Your task to perform on an android device: move an email to a new category in the gmail app Image 0: 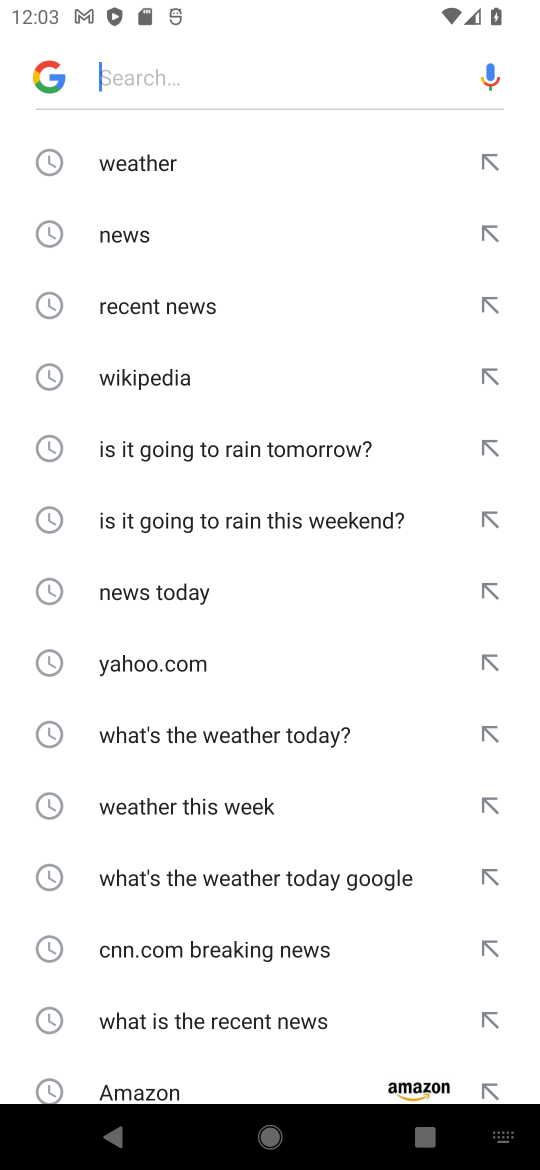
Step 0: press home button
Your task to perform on an android device: move an email to a new category in the gmail app Image 1: 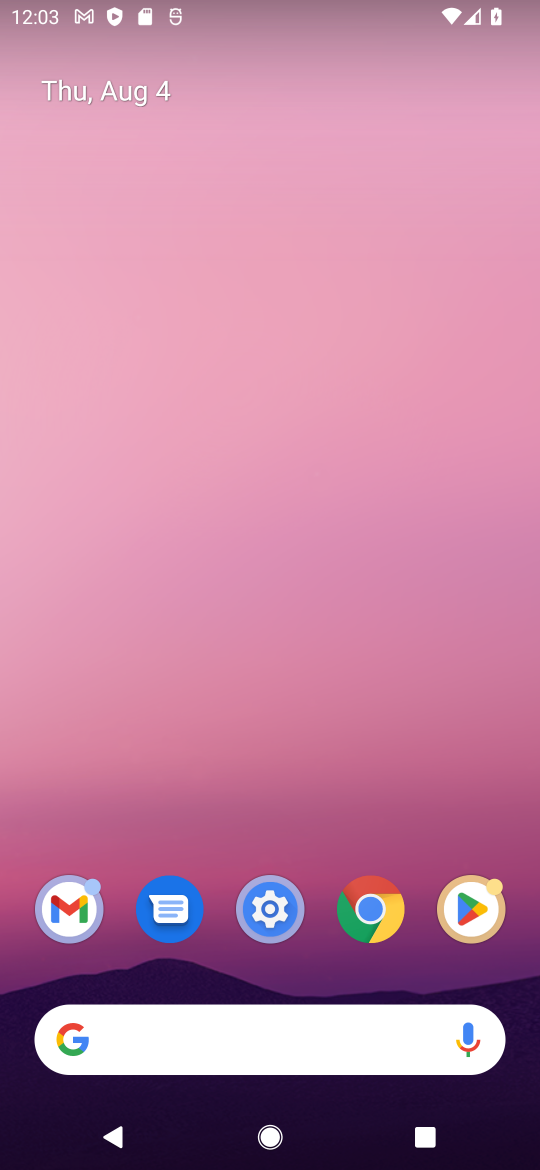
Step 1: click (71, 905)
Your task to perform on an android device: move an email to a new category in the gmail app Image 2: 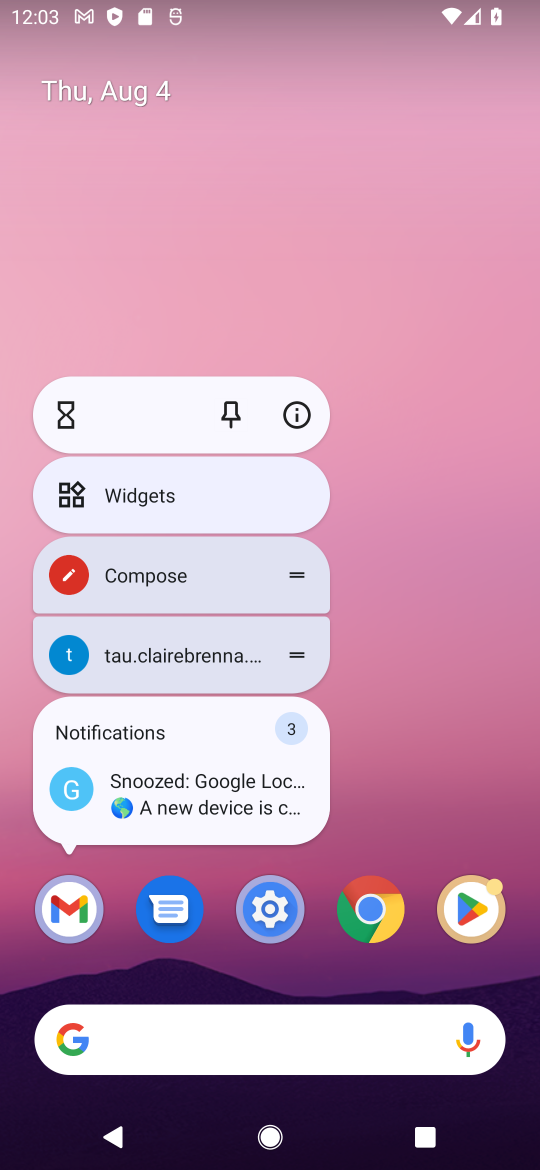
Step 2: click (79, 895)
Your task to perform on an android device: move an email to a new category in the gmail app Image 3: 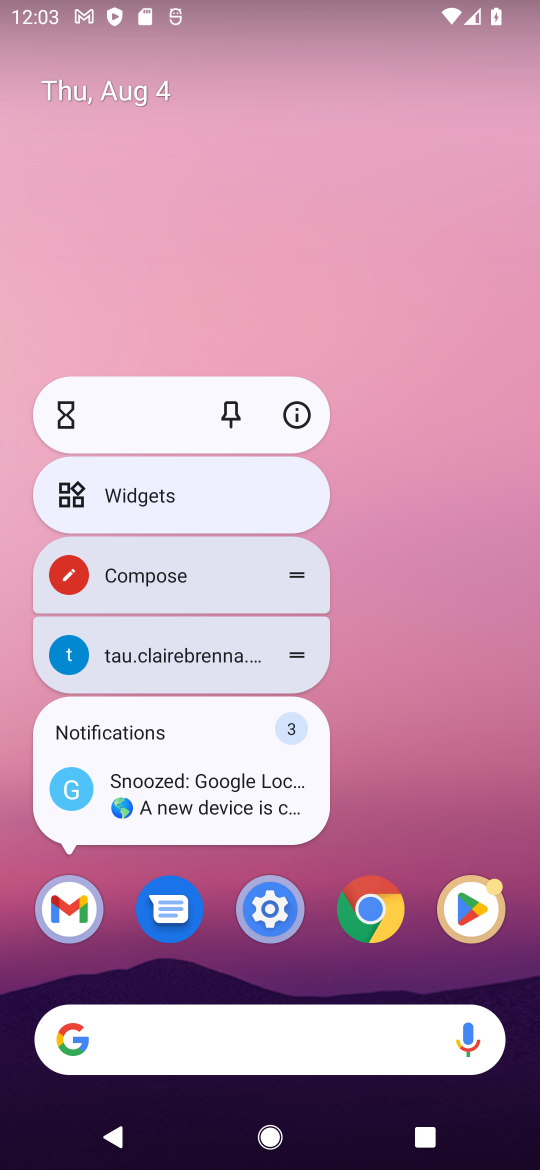
Step 3: click (79, 895)
Your task to perform on an android device: move an email to a new category in the gmail app Image 4: 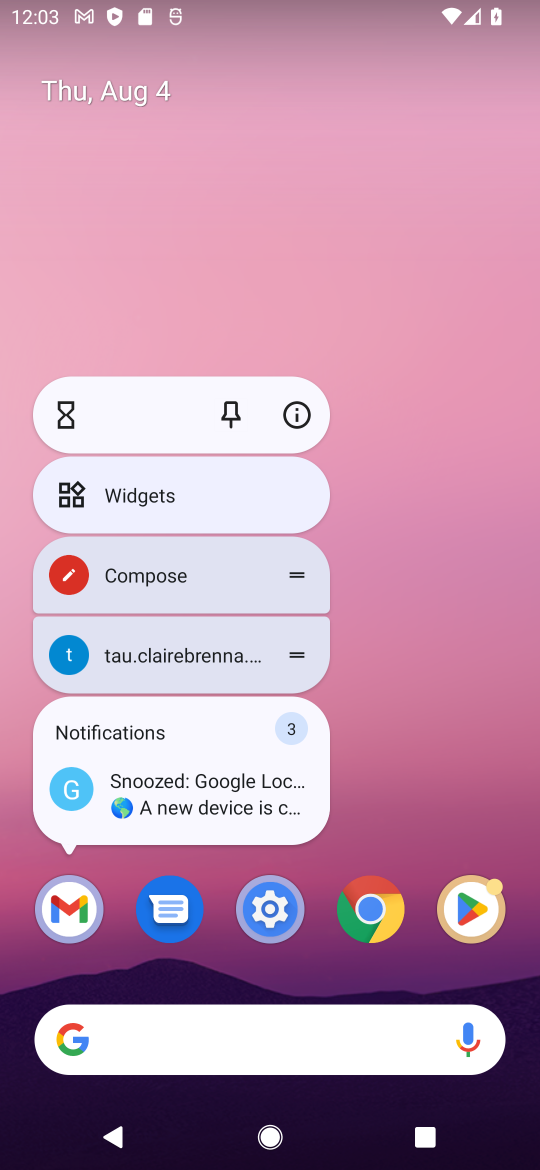
Step 4: click (55, 919)
Your task to perform on an android device: move an email to a new category in the gmail app Image 5: 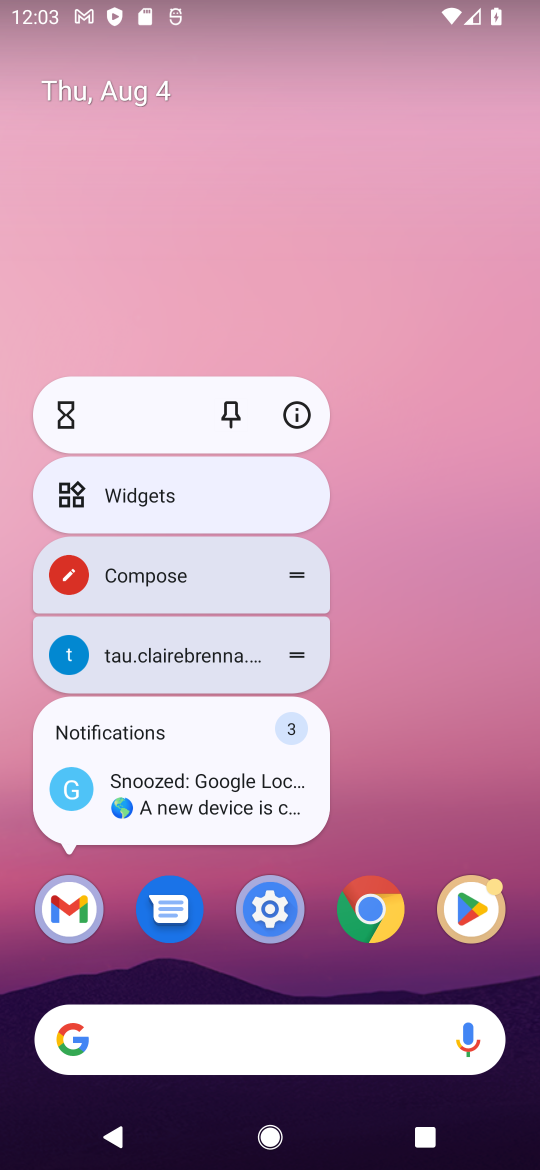
Step 5: click (55, 919)
Your task to perform on an android device: move an email to a new category in the gmail app Image 6: 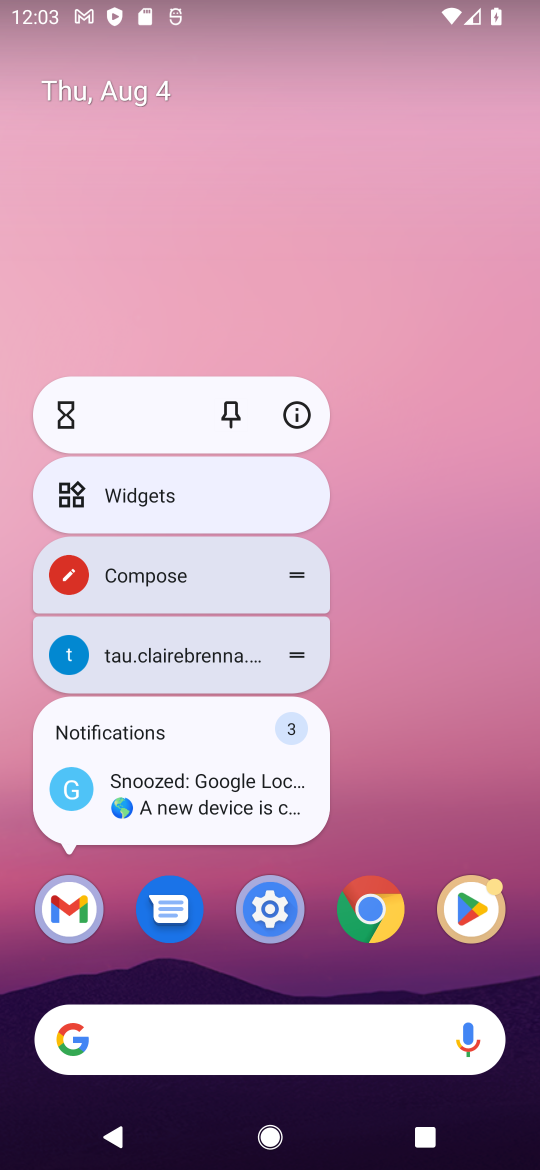
Step 6: click (55, 919)
Your task to perform on an android device: move an email to a new category in the gmail app Image 7: 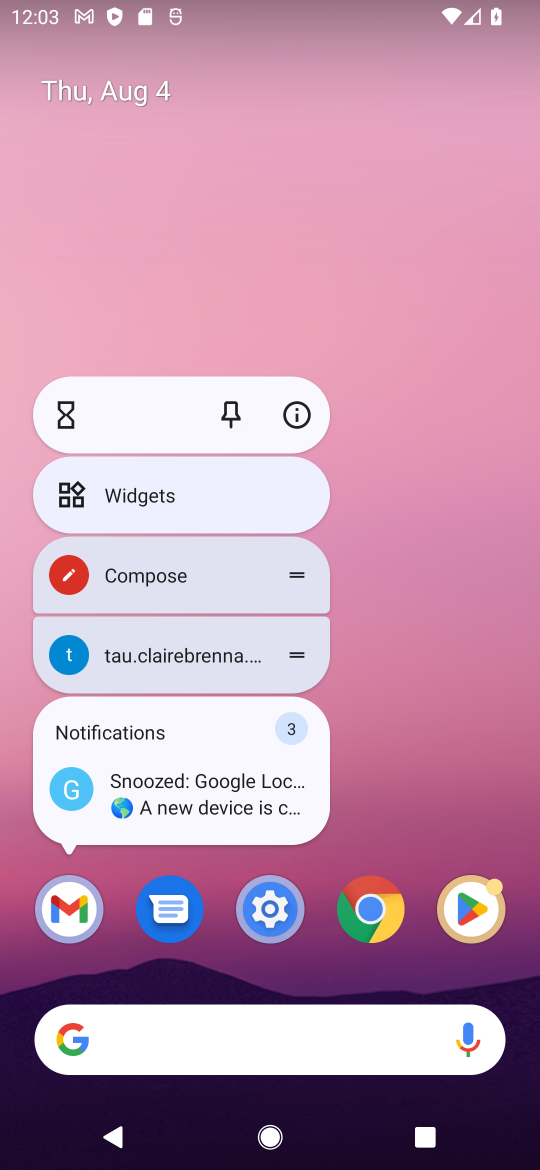
Step 7: click (58, 927)
Your task to perform on an android device: move an email to a new category in the gmail app Image 8: 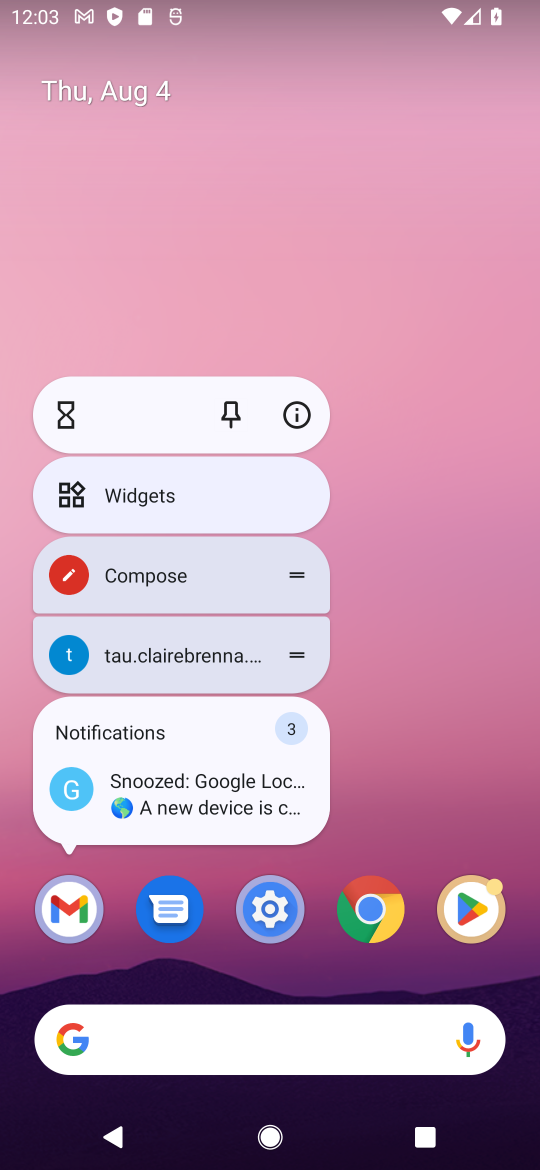
Step 8: click (62, 925)
Your task to perform on an android device: move an email to a new category in the gmail app Image 9: 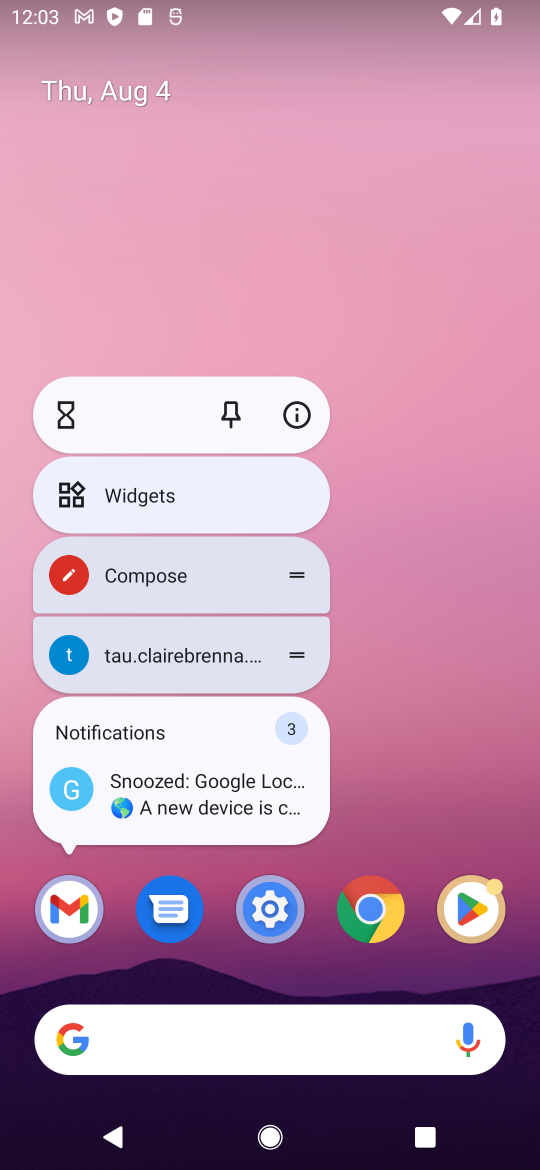
Step 9: click (62, 925)
Your task to perform on an android device: move an email to a new category in the gmail app Image 10: 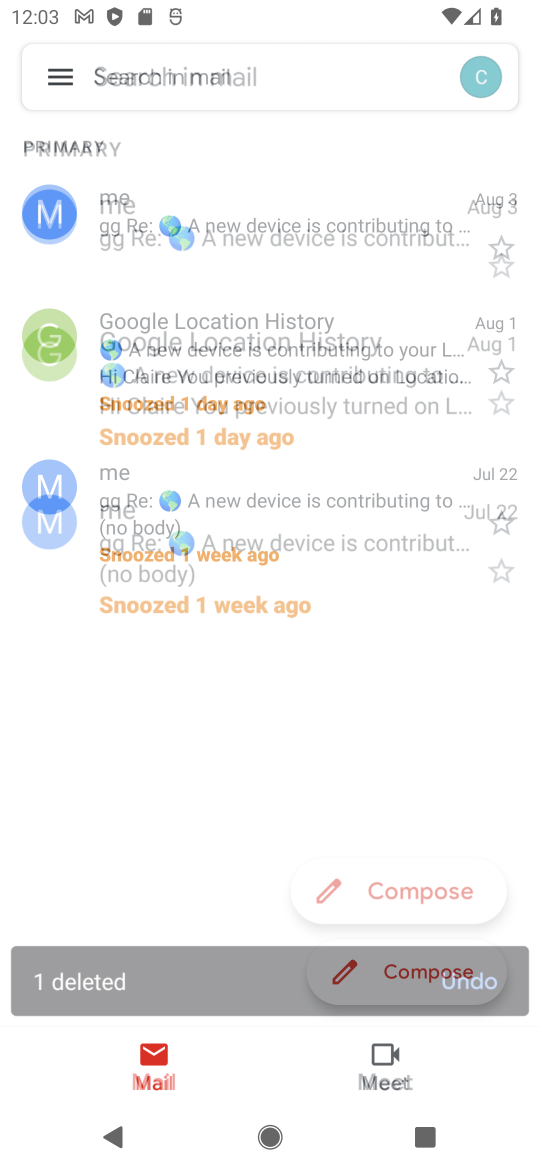
Step 10: click (62, 925)
Your task to perform on an android device: move an email to a new category in the gmail app Image 11: 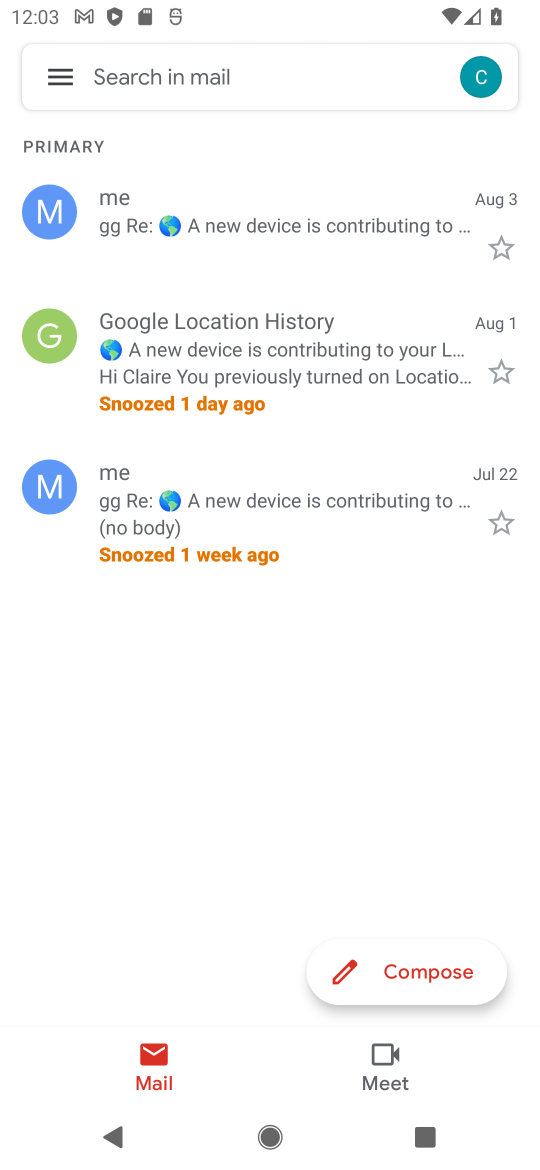
Step 11: click (398, 301)
Your task to perform on an android device: move an email to a new category in the gmail app Image 12: 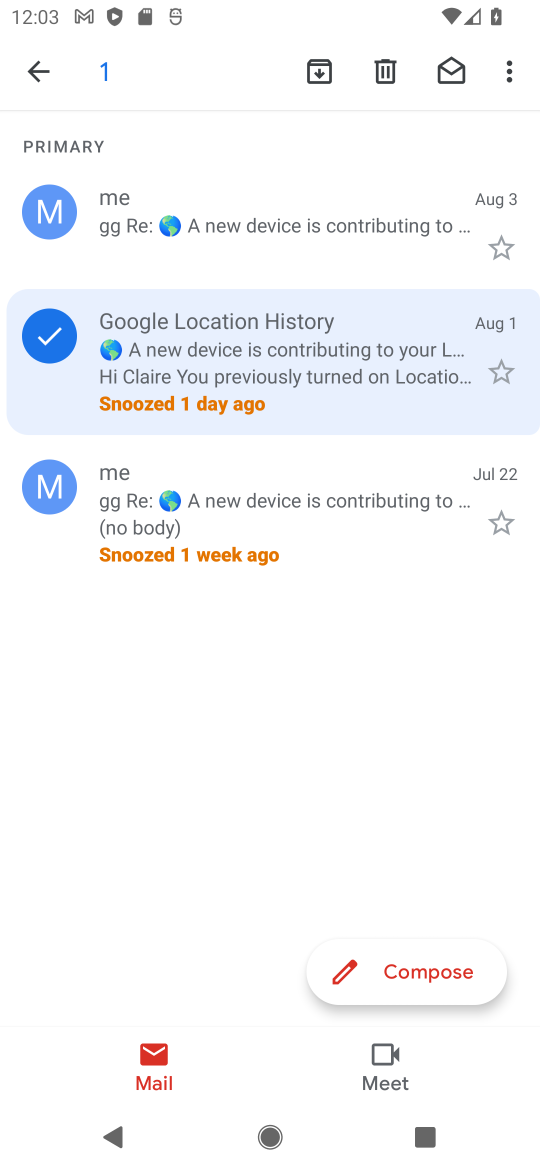
Step 12: click (504, 74)
Your task to perform on an android device: move an email to a new category in the gmail app Image 13: 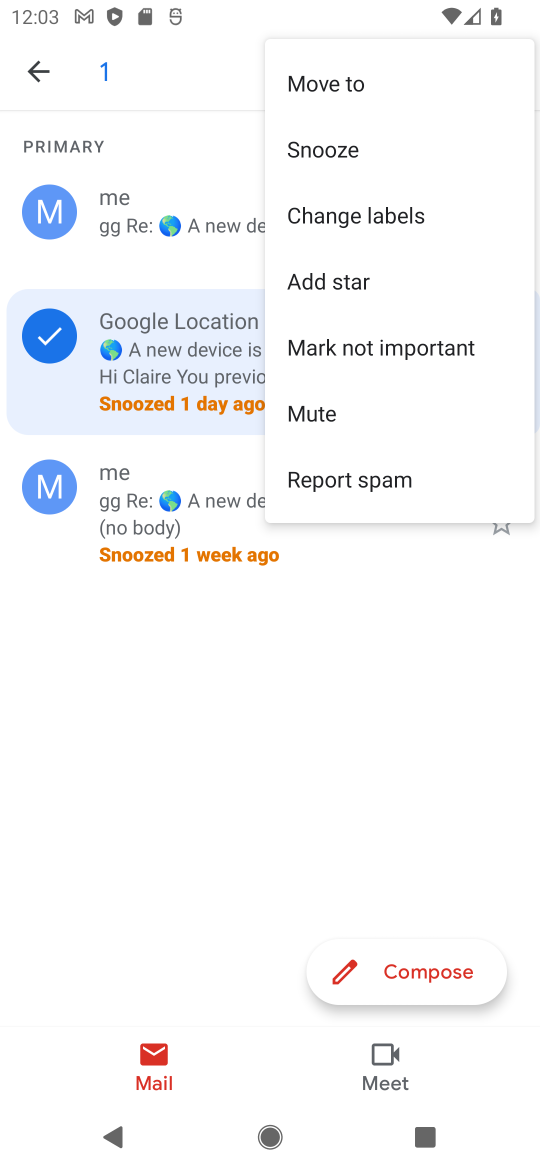
Step 13: click (404, 79)
Your task to perform on an android device: move an email to a new category in the gmail app Image 14: 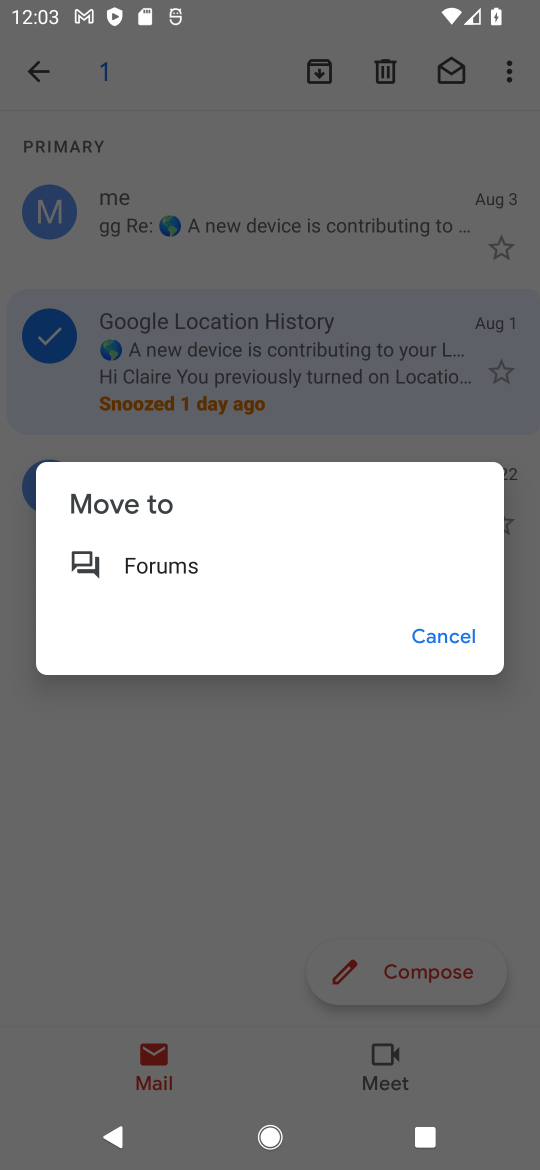
Step 14: click (120, 563)
Your task to perform on an android device: move an email to a new category in the gmail app Image 15: 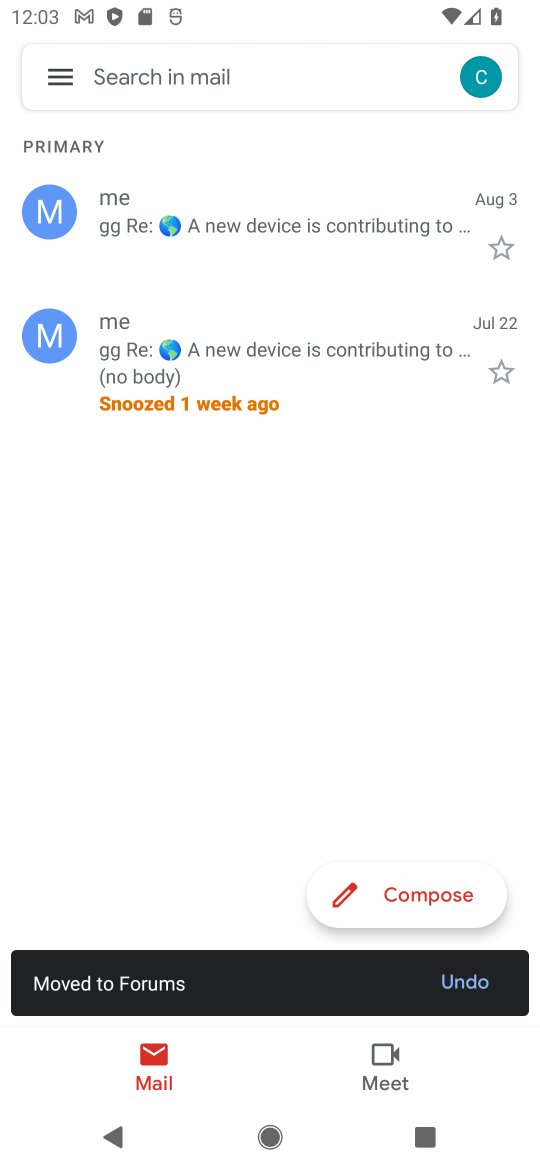
Step 15: task complete